Your task to perform on an android device: Open internet settings Image 0: 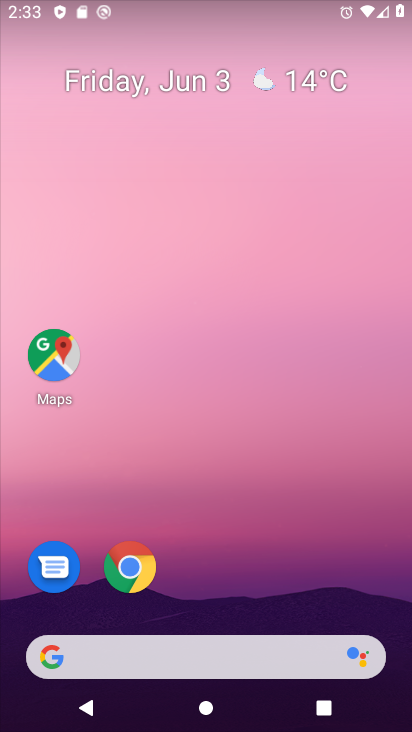
Step 0: drag from (239, 682) to (161, 171)
Your task to perform on an android device: Open internet settings Image 1: 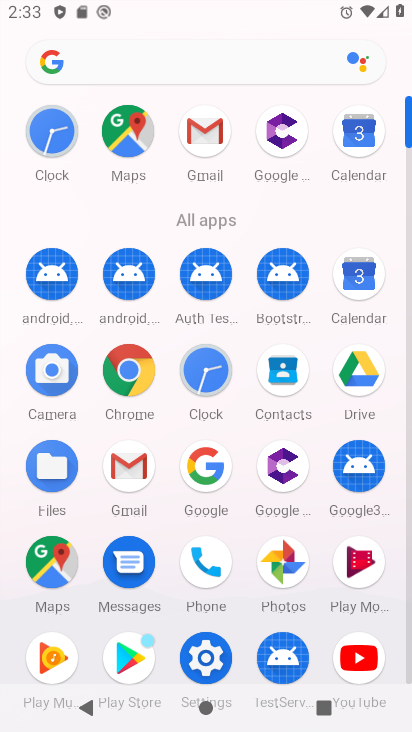
Step 1: click (208, 659)
Your task to perform on an android device: Open internet settings Image 2: 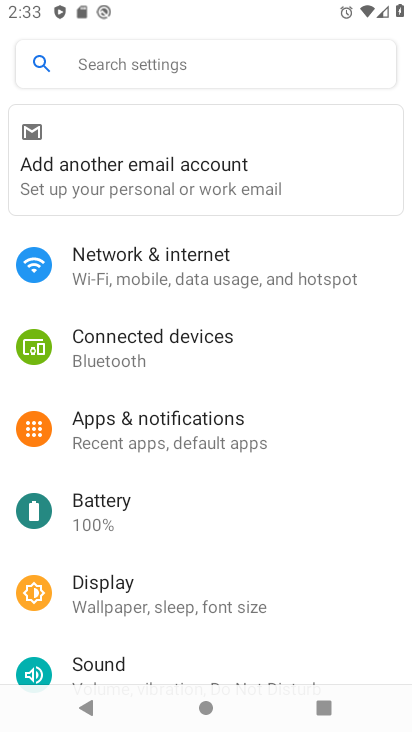
Step 2: click (180, 254)
Your task to perform on an android device: Open internet settings Image 3: 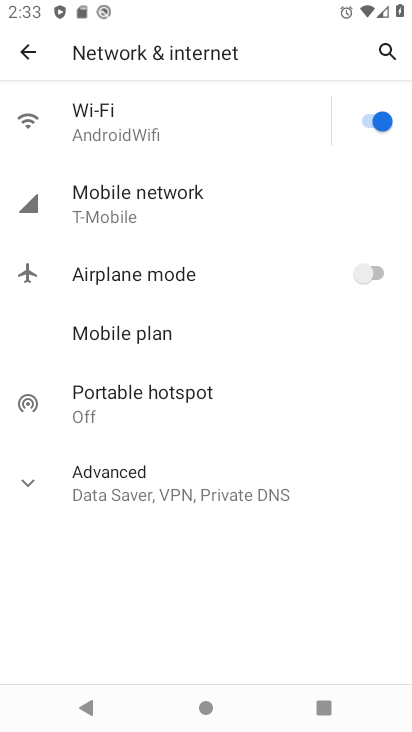
Step 3: task complete